Your task to perform on an android device: toggle sleep mode Image 0: 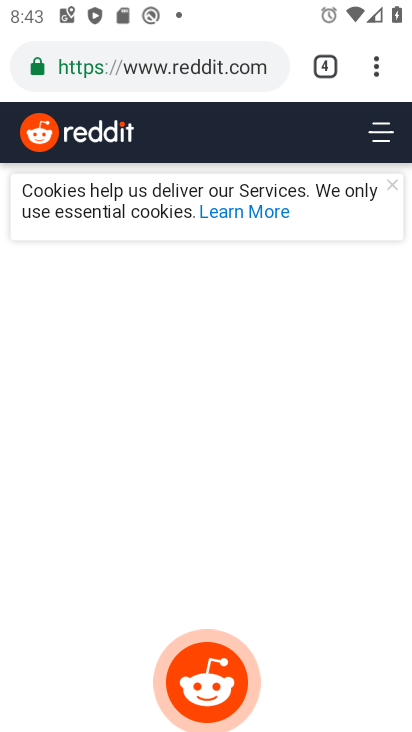
Step 0: press home button
Your task to perform on an android device: toggle sleep mode Image 1: 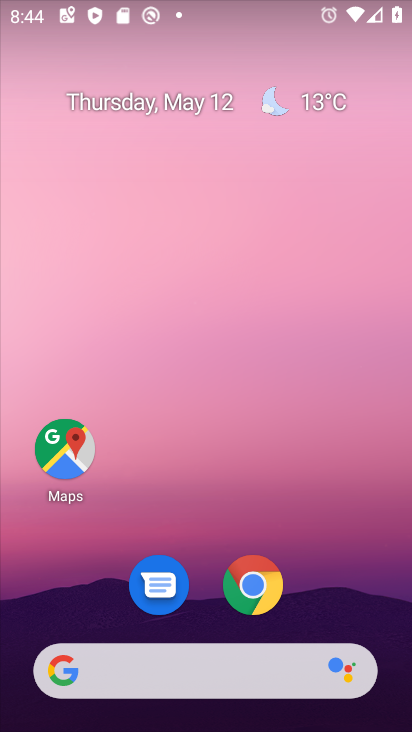
Step 1: drag from (331, 497) to (284, 19)
Your task to perform on an android device: toggle sleep mode Image 2: 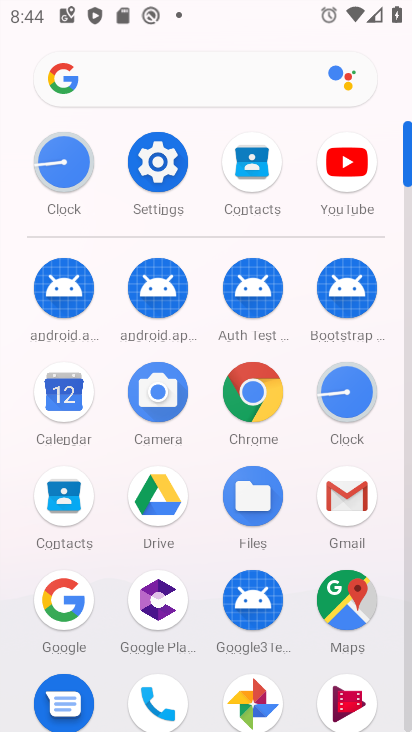
Step 2: click (167, 171)
Your task to perform on an android device: toggle sleep mode Image 3: 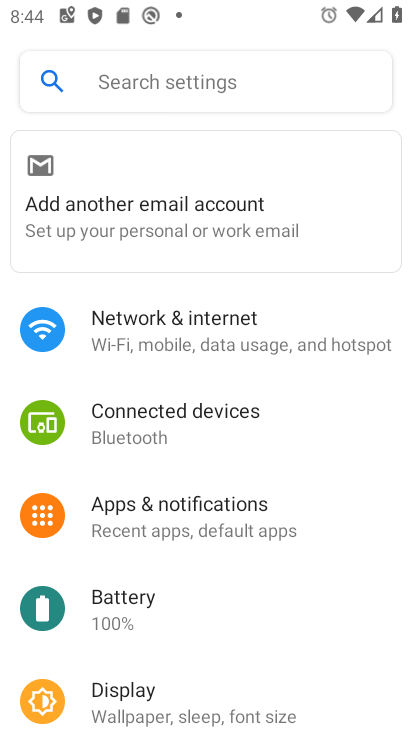
Step 3: drag from (206, 554) to (197, 295)
Your task to perform on an android device: toggle sleep mode Image 4: 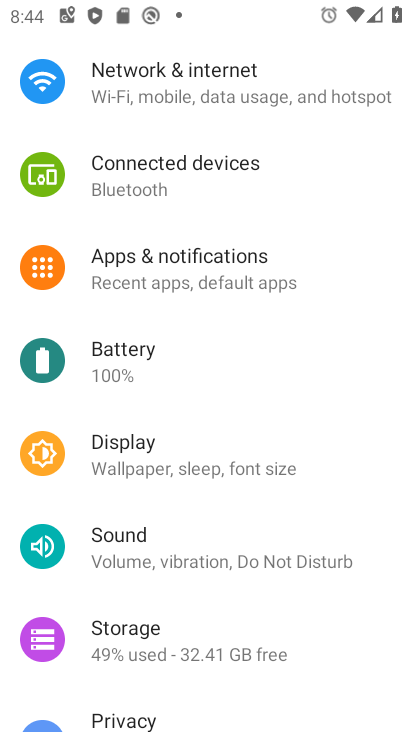
Step 4: click (210, 448)
Your task to perform on an android device: toggle sleep mode Image 5: 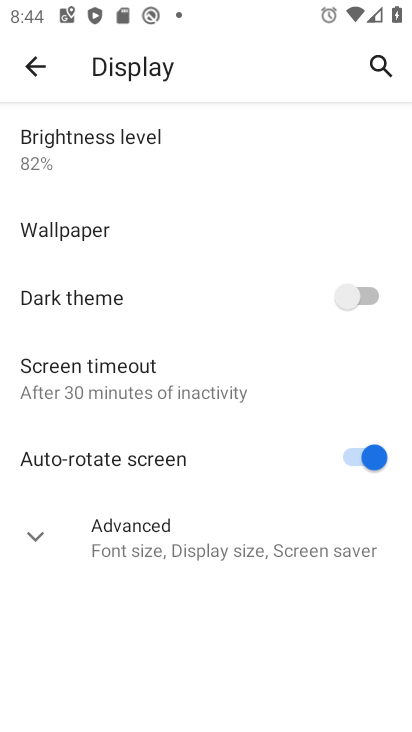
Step 5: click (28, 532)
Your task to perform on an android device: toggle sleep mode Image 6: 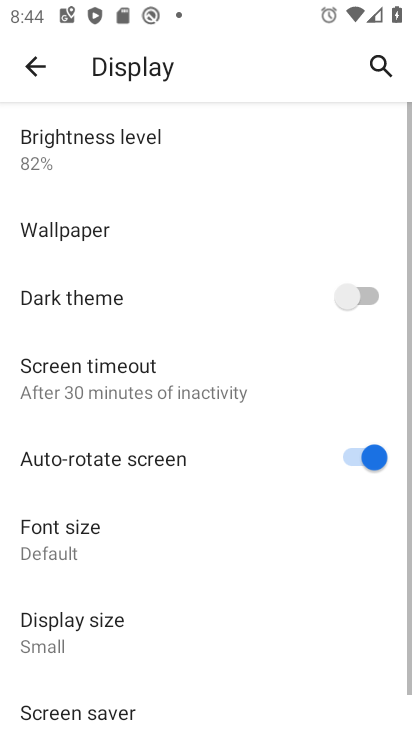
Step 6: task complete